Your task to perform on an android device: open chrome and create a bookmark for the current page Image 0: 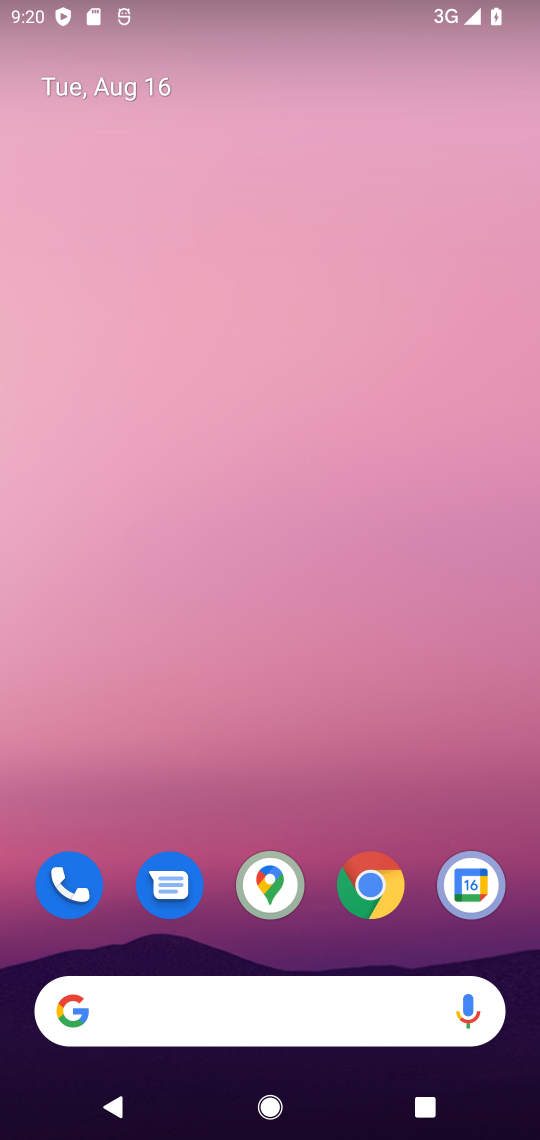
Step 0: click (368, 892)
Your task to perform on an android device: open chrome and create a bookmark for the current page Image 1: 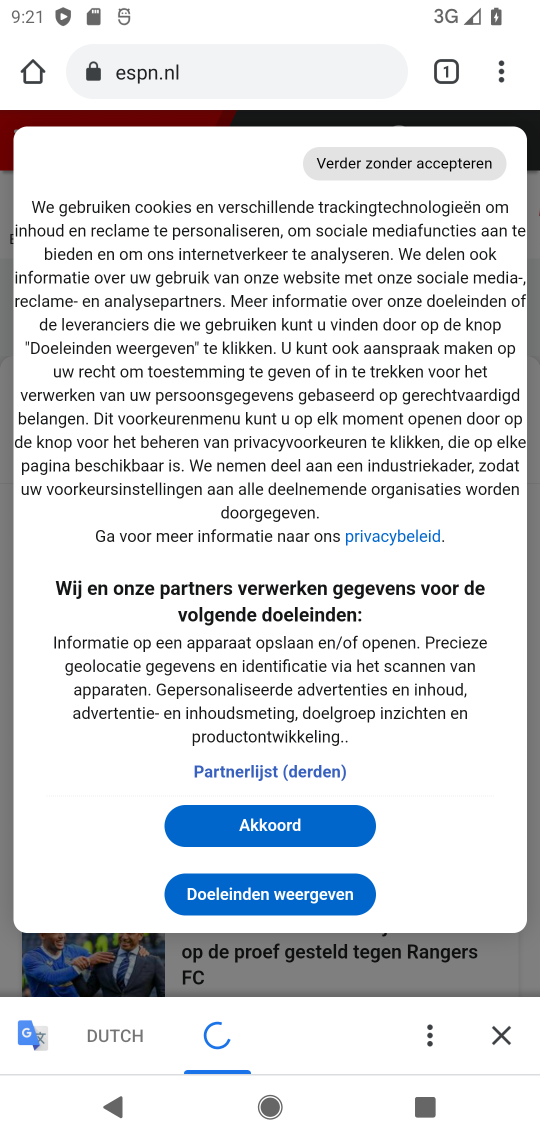
Step 1: click (509, 72)
Your task to perform on an android device: open chrome and create a bookmark for the current page Image 2: 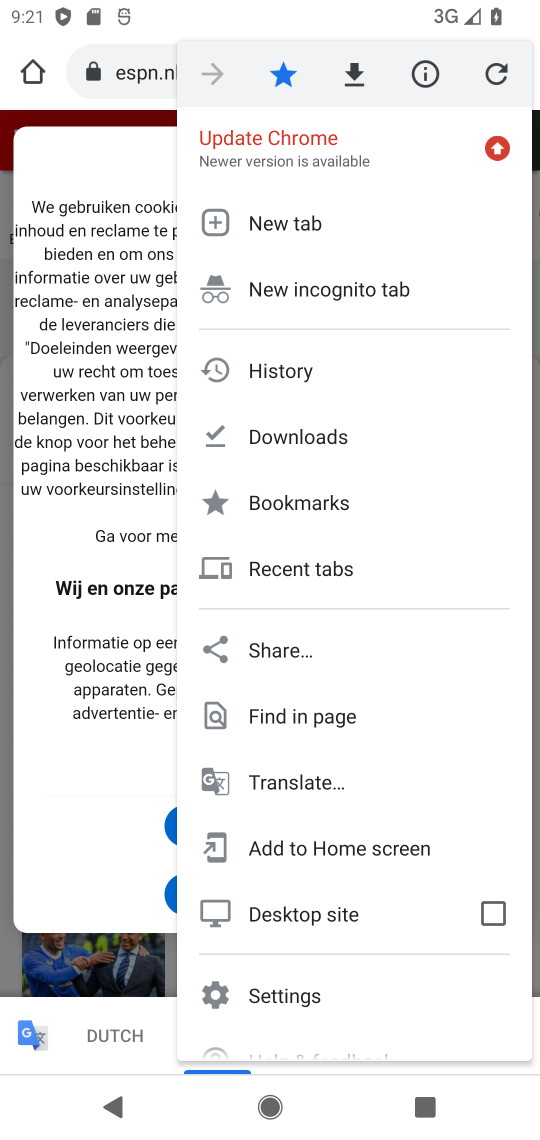
Step 2: task complete